Your task to perform on an android device: turn on airplane mode Image 0: 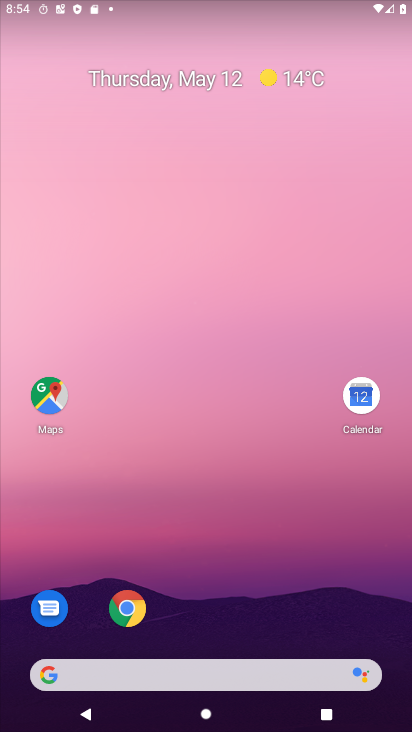
Step 0: task impossible